Your task to perform on an android device: toggle notifications settings in the gmail app Image 0: 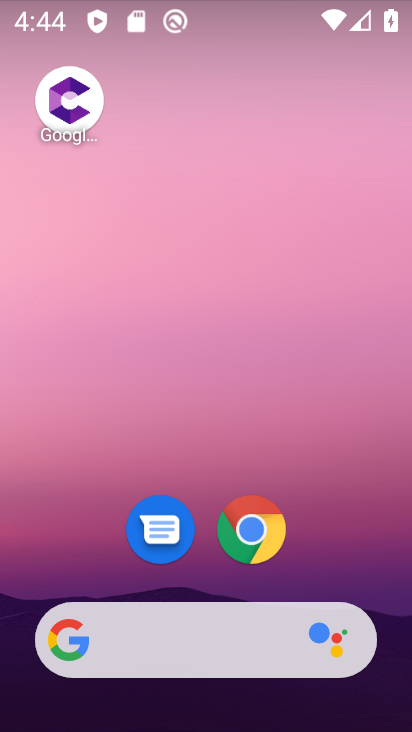
Step 0: drag from (333, 555) to (253, 0)
Your task to perform on an android device: toggle notifications settings in the gmail app Image 1: 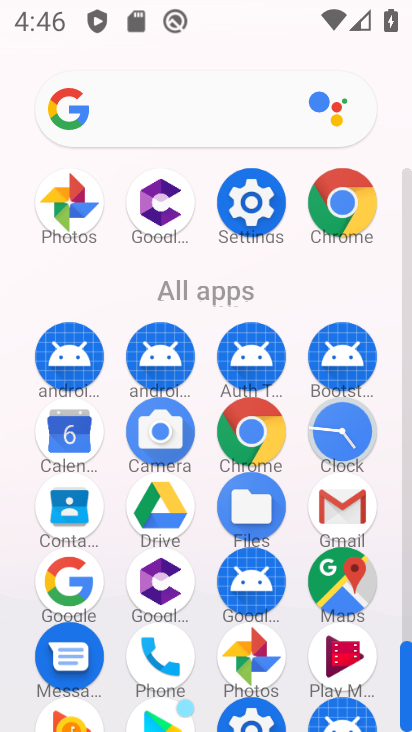
Step 1: drag from (335, 521) to (298, 342)
Your task to perform on an android device: toggle notifications settings in the gmail app Image 2: 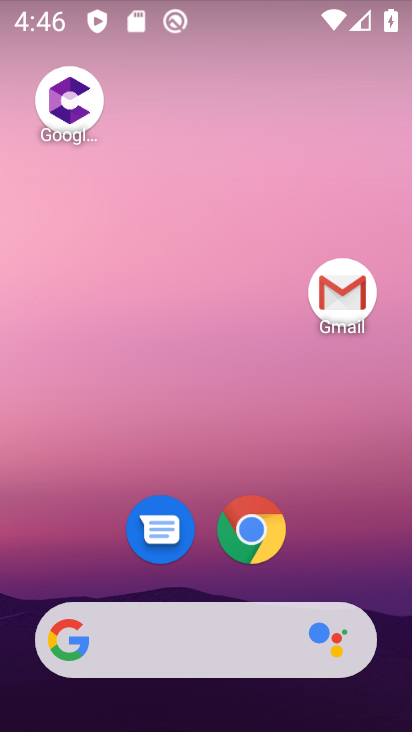
Step 2: click (352, 282)
Your task to perform on an android device: toggle notifications settings in the gmail app Image 3: 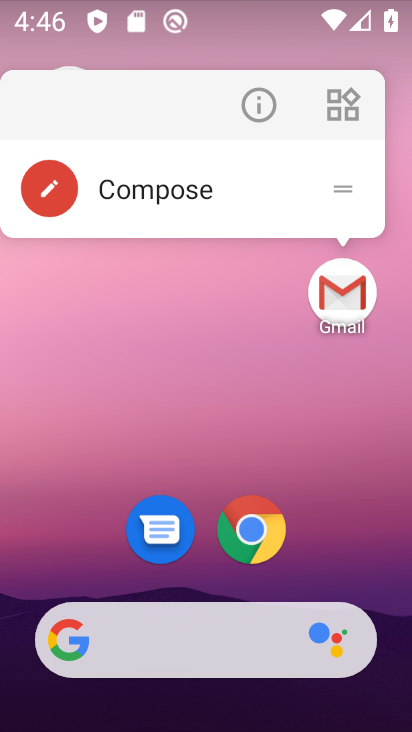
Step 3: click (262, 111)
Your task to perform on an android device: toggle notifications settings in the gmail app Image 4: 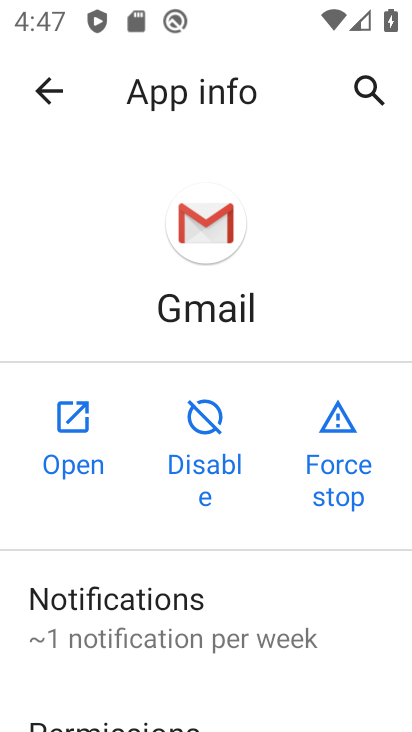
Step 4: click (161, 614)
Your task to perform on an android device: toggle notifications settings in the gmail app Image 5: 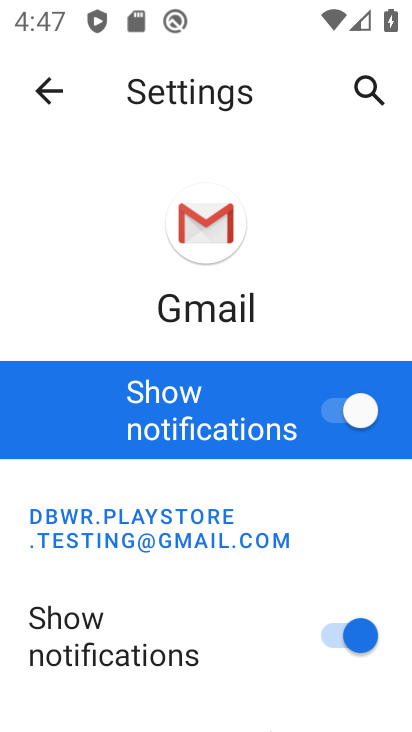
Step 5: click (350, 433)
Your task to perform on an android device: toggle notifications settings in the gmail app Image 6: 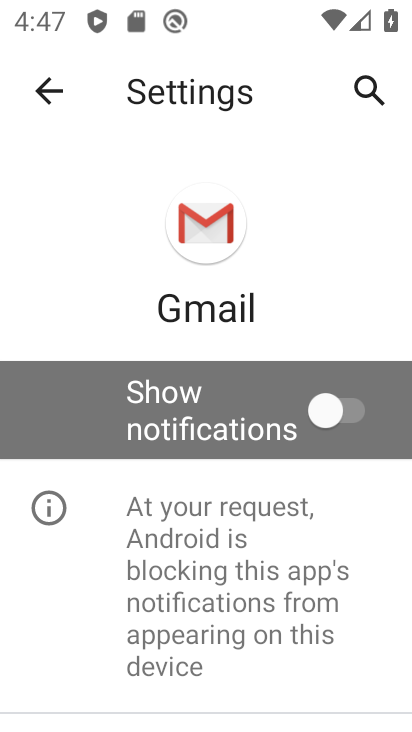
Step 6: task complete